Your task to perform on an android device: Go to battery settings Image 0: 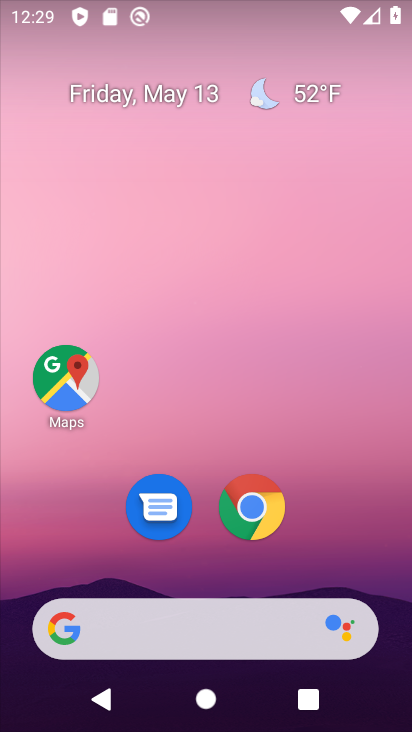
Step 0: drag from (182, 487) to (291, 104)
Your task to perform on an android device: Go to battery settings Image 1: 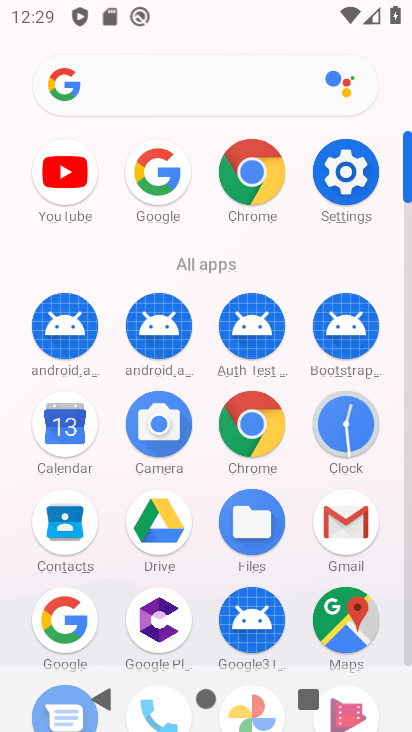
Step 1: click (355, 176)
Your task to perform on an android device: Go to battery settings Image 2: 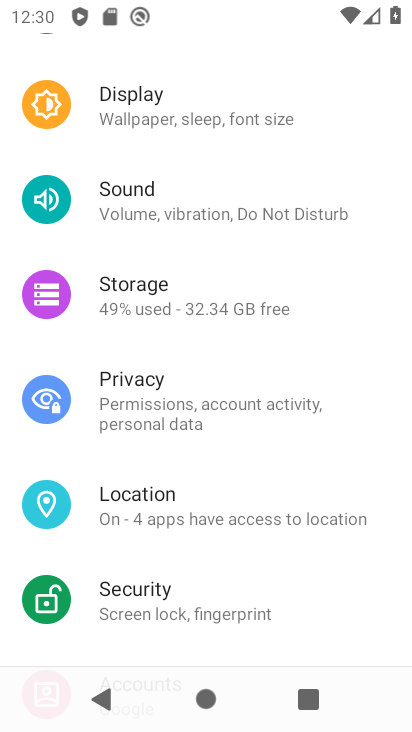
Step 2: drag from (157, 619) to (176, 244)
Your task to perform on an android device: Go to battery settings Image 3: 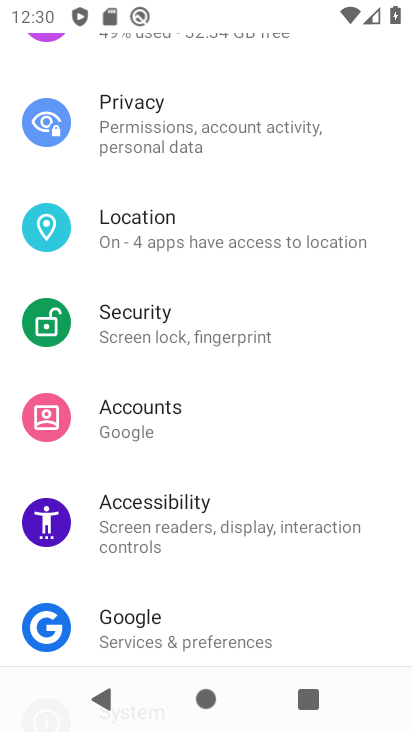
Step 3: drag from (203, 73) to (240, 601)
Your task to perform on an android device: Go to battery settings Image 4: 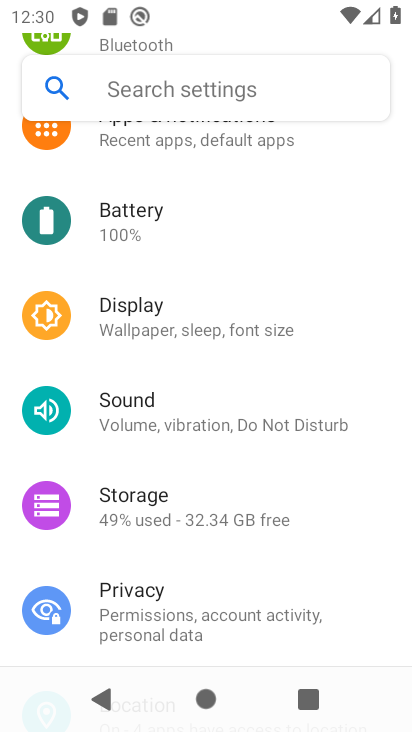
Step 4: click (131, 216)
Your task to perform on an android device: Go to battery settings Image 5: 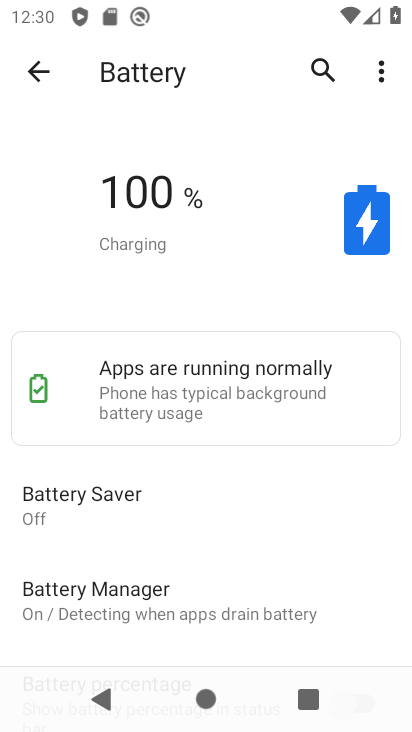
Step 5: task complete